Your task to perform on an android device: Open accessibility settings Image 0: 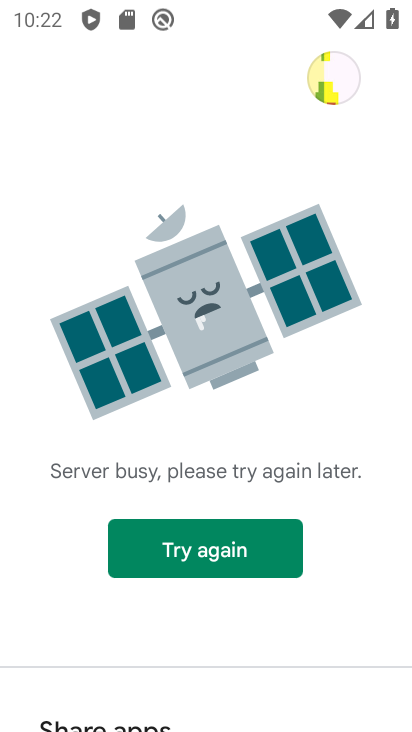
Step 0: press home button
Your task to perform on an android device: Open accessibility settings Image 1: 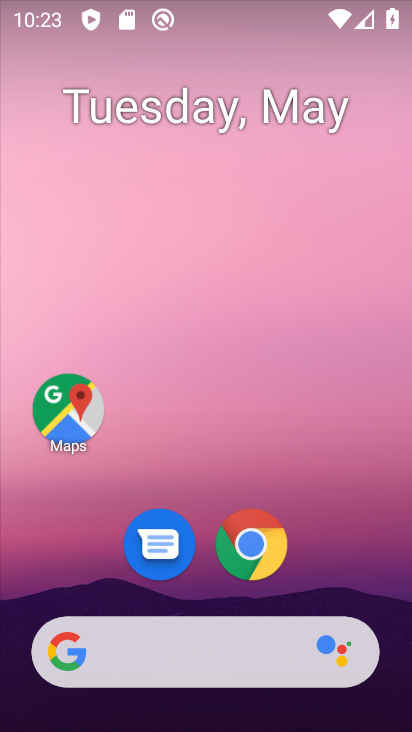
Step 1: drag from (346, 560) to (289, 160)
Your task to perform on an android device: Open accessibility settings Image 2: 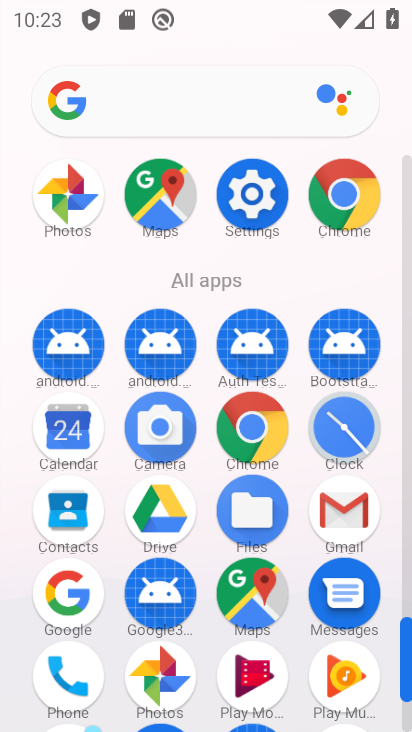
Step 2: click (253, 193)
Your task to perform on an android device: Open accessibility settings Image 3: 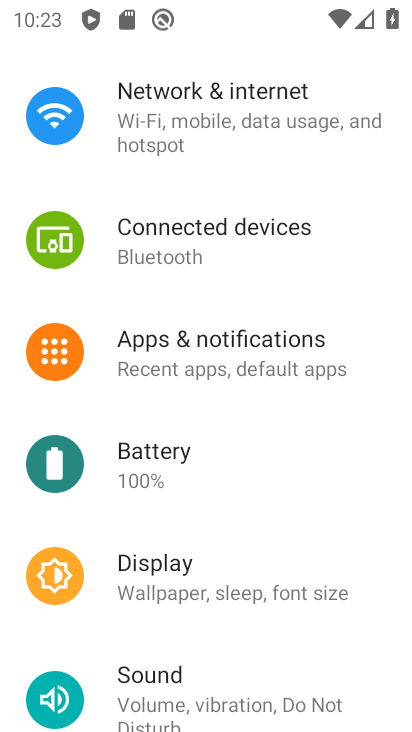
Step 3: drag from (254, 661) to (211, 362)
Your task to perform on an android device: Open accessibility settings Image 4: 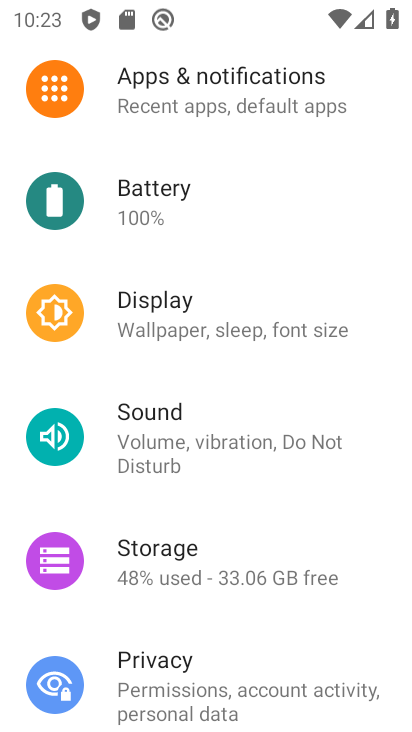
Step 4: drag from (249, 633) to (197, 182)
Your task to perform on an android device: Open accessibility settings Image 5: 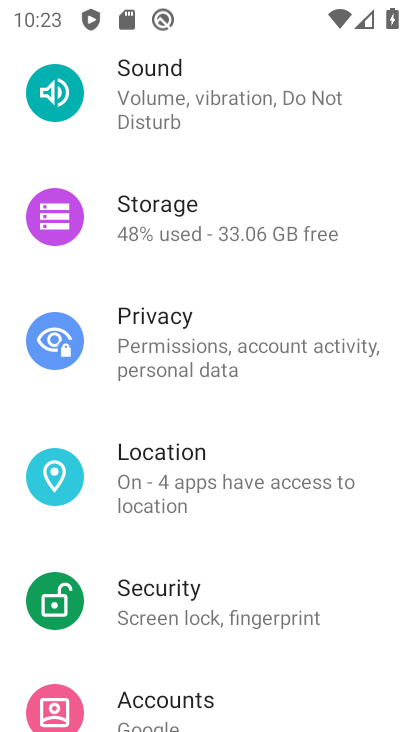
Step 5: drag from (244, 615) to (212, 156)
Your task to perform on an android device: Open accessibility settings Image 6: 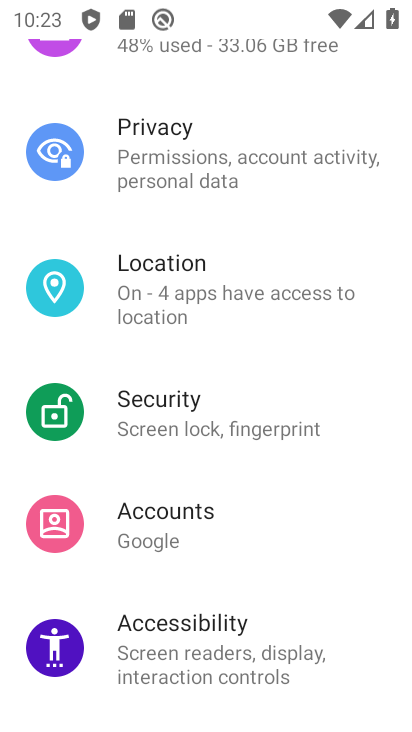
Step 6: click (169, 625)
Your task to perform on an android device: Open accessibility settings Image 7: 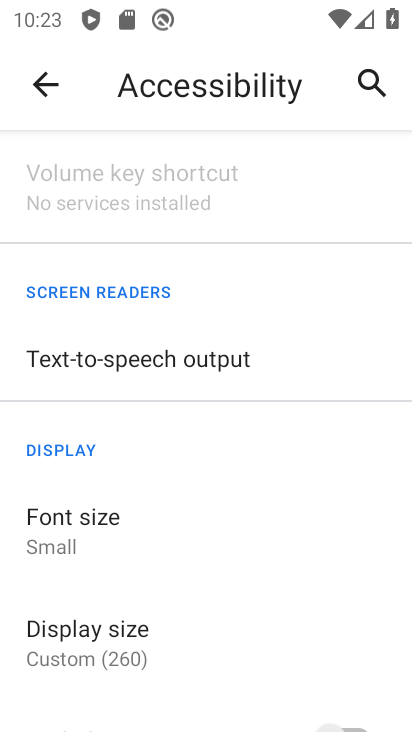
Step 7: task complete